Your task to perform on an android device: Open display settings Image 0: 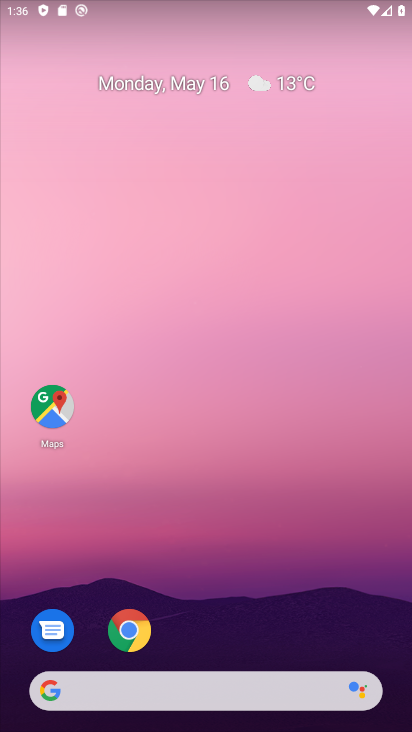
Step 0: drag from (188, 474) to (84, 14)
Your task to perform on an android device: Open display settings Image 1: 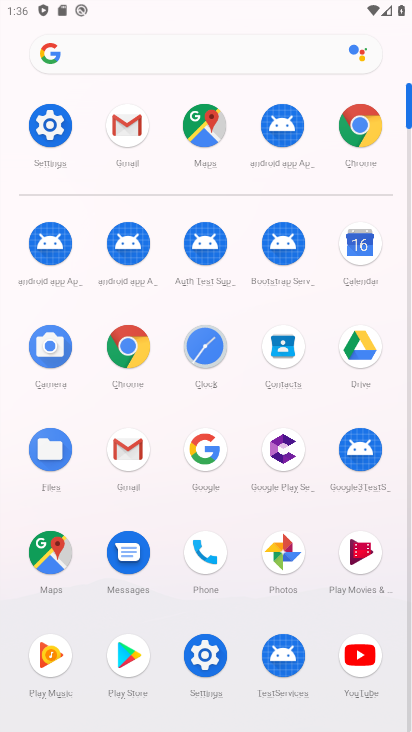
Step 1: click (46, 110)
Your task to perform on an android device: Open display settings Image 2: 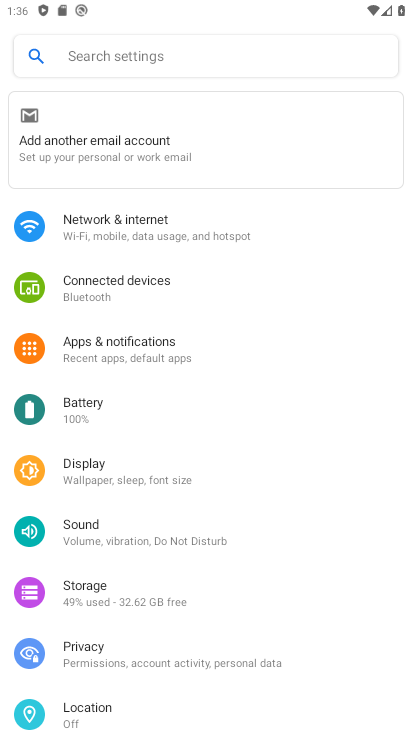
Step 2: click (140, 471)
Your task to perform on an android device: Open display settings Image 3: 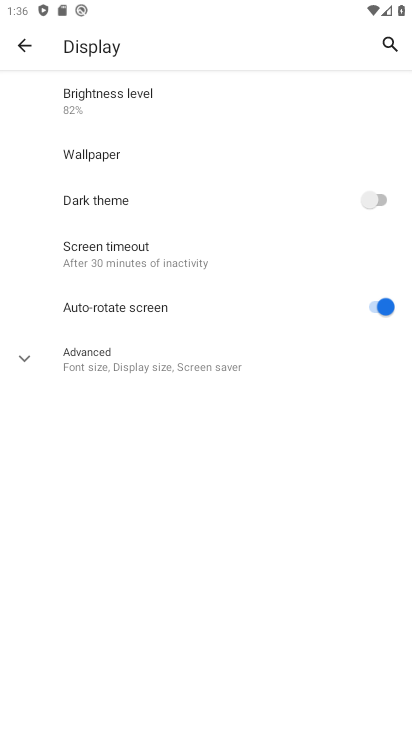
Step 3: task complete